Your task to perform on an android device: set an alarm Image 0: 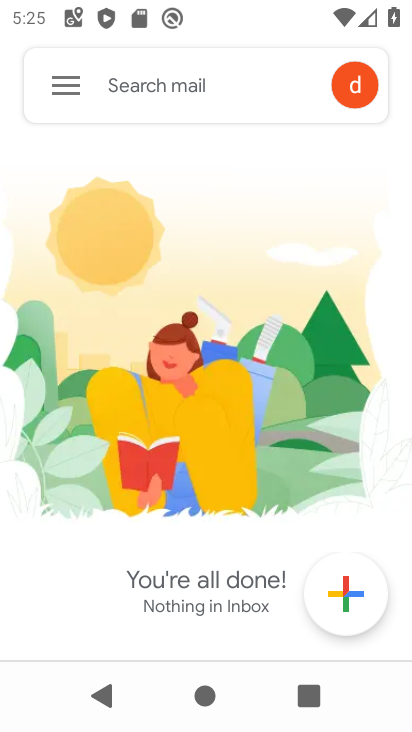
Step 0: press home button
Your task to perform on an android device: set an alarm Image 1: 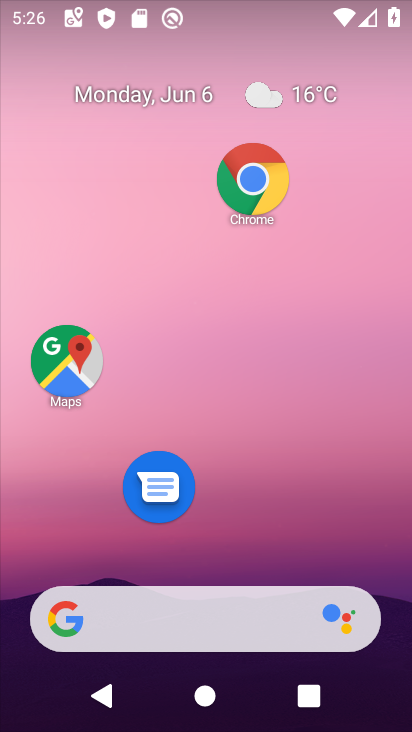
Step 1: drag from (245, 526) to (234, 37)
Your task to perform on an android device: set an alarm Image 2: 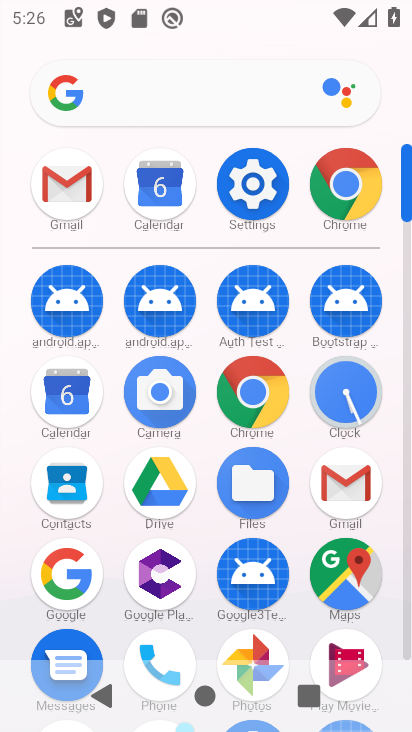
Step 2: drag from (201, 444) to (204, 284)
Your task to perform on an android device: set an alarm Image 3: 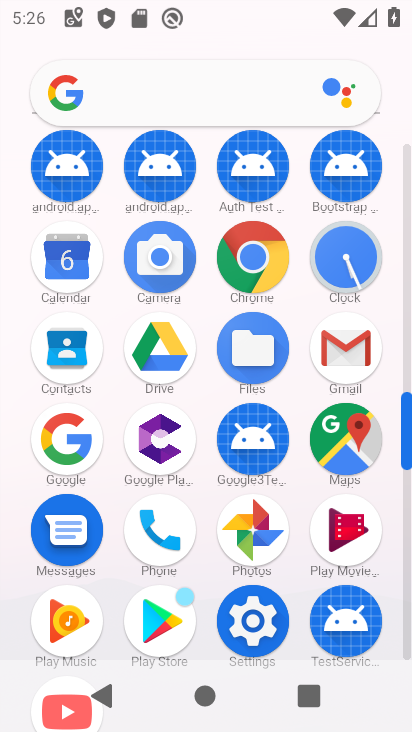
Step 3: click (334, 247)
Your task to perform on an android device: set an alarm Image 4: 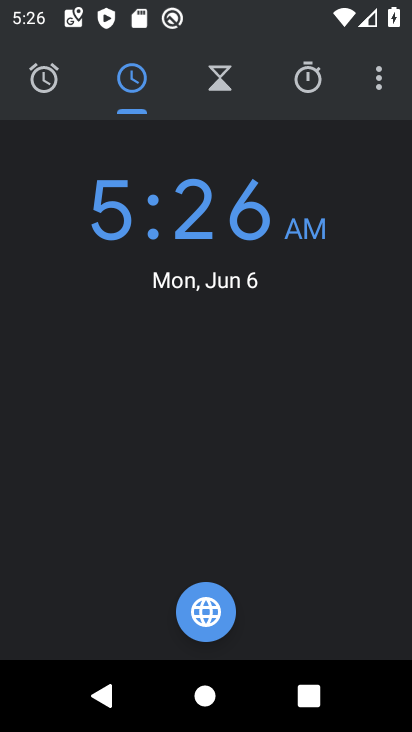
Step 4: click (51, 88)
Your task to perform on an android device: set an alarm Image 5: 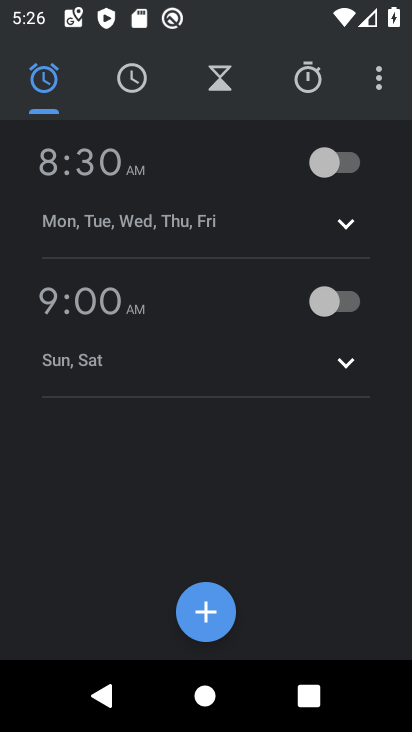
Step 5: click (208, 618)
Your task to perform on an android device: set an alarm Image 6: 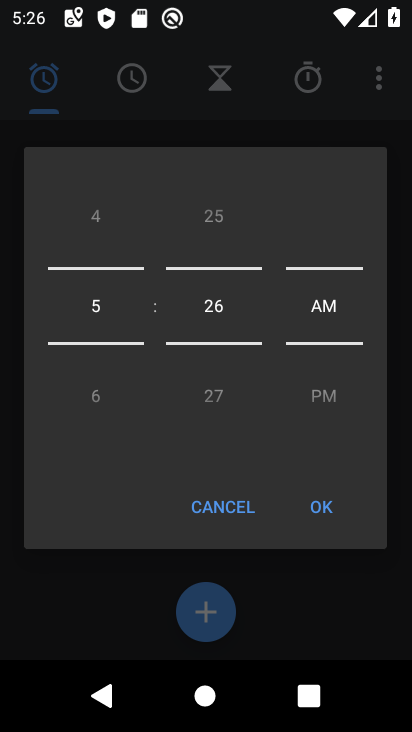
Step 6: drag from (216, 318) to (228, 130)
Your task to perform on an android device: set an alarm Image 7: 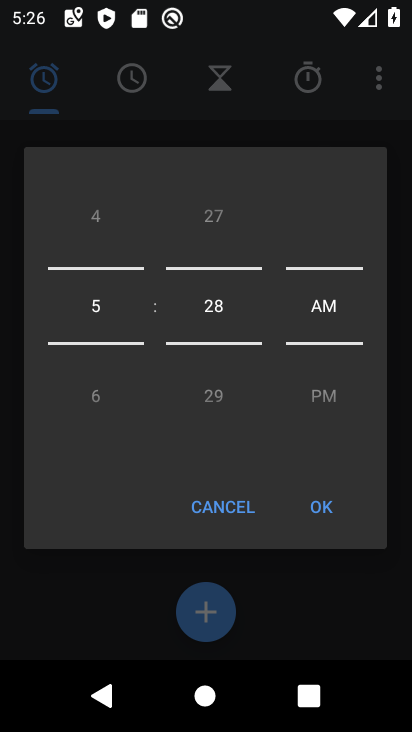
Step 7: drag from (220, 377) to (223, 218)
Your task to perform on an android device: set an alarm Image 8: 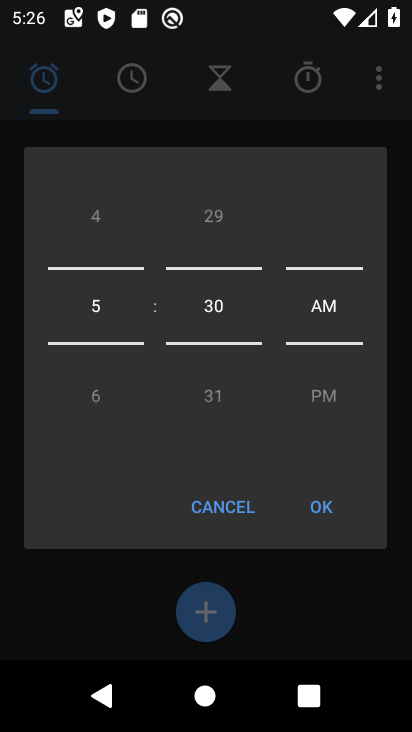
Step 8: click (320, 516)
Your task to perform on an android device: set an alarm Image 9: 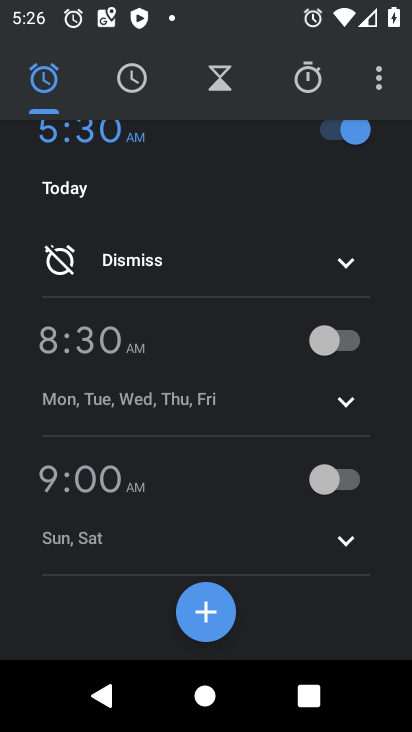
Step 9: task complete